Your task to perform on an android device: Find coffee shops on Maps Image 0: 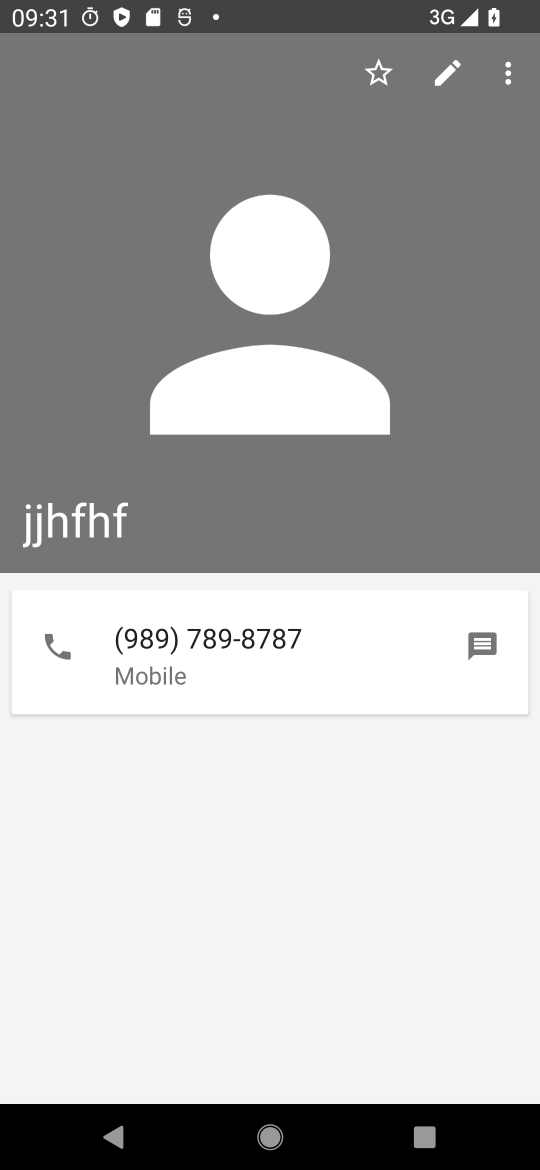
Step 0: press home button
Your task to perform on an android device: Find coffee shops on Maps Image 1: 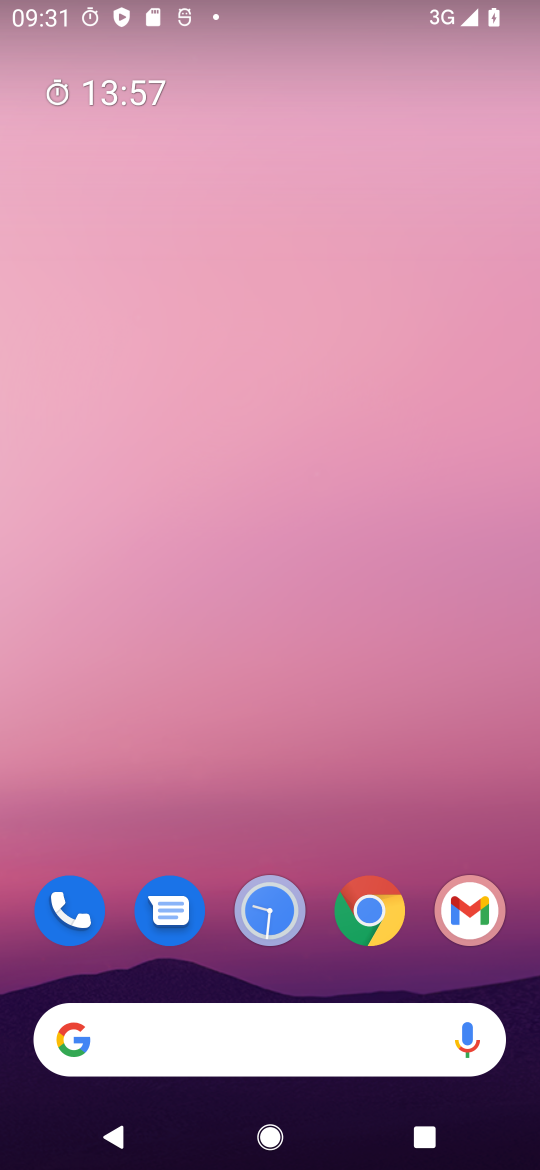
Step 1: drag from (285, 1030) to (304, 60)
Your task to perform on an android device: Find coffee shops on Maps Image 2: 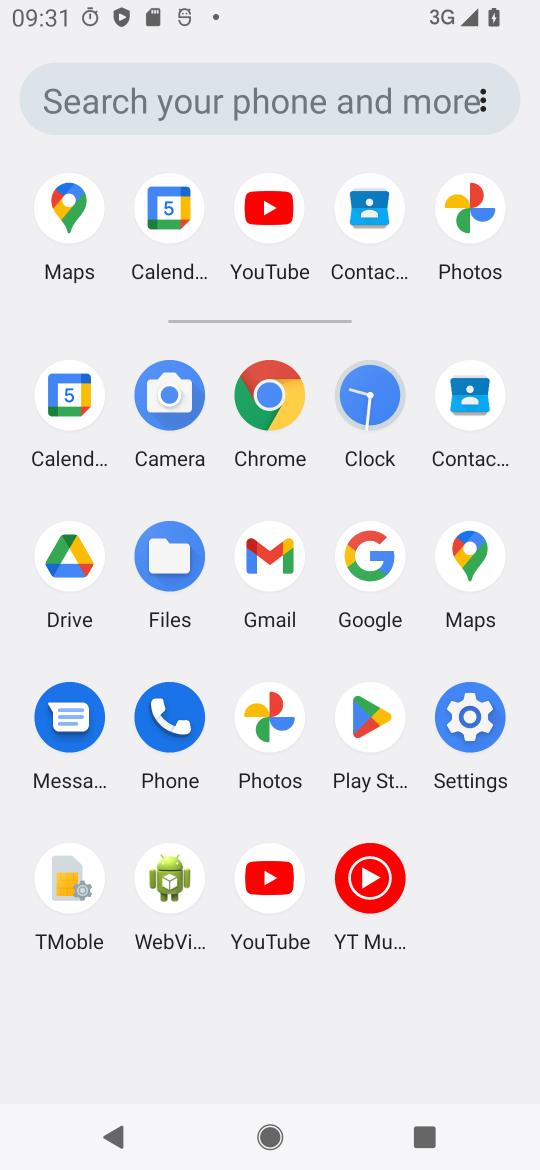
Step 2: click (483, 547)
Your task to perform on an android device: Find coffee shops on Maps Image 3: 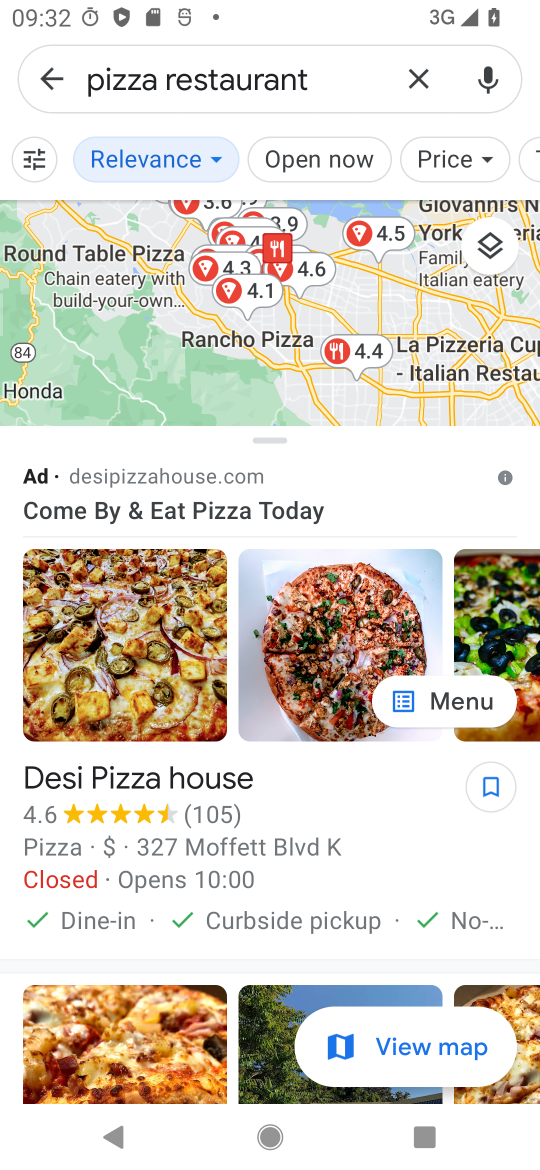
Step 3: click (415, 63)
Your task to perform on an android device: Find coffee shops on Maps Image 4: 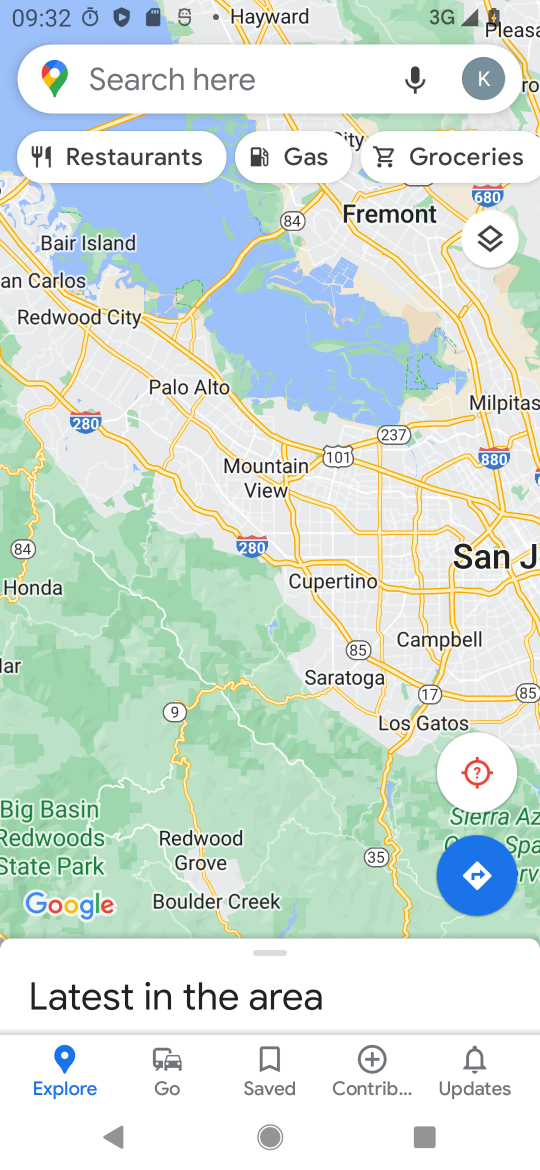
Step 4: click (338, 75)
Your task to perform on an android device: Find coffee shops on Maps Image 5: 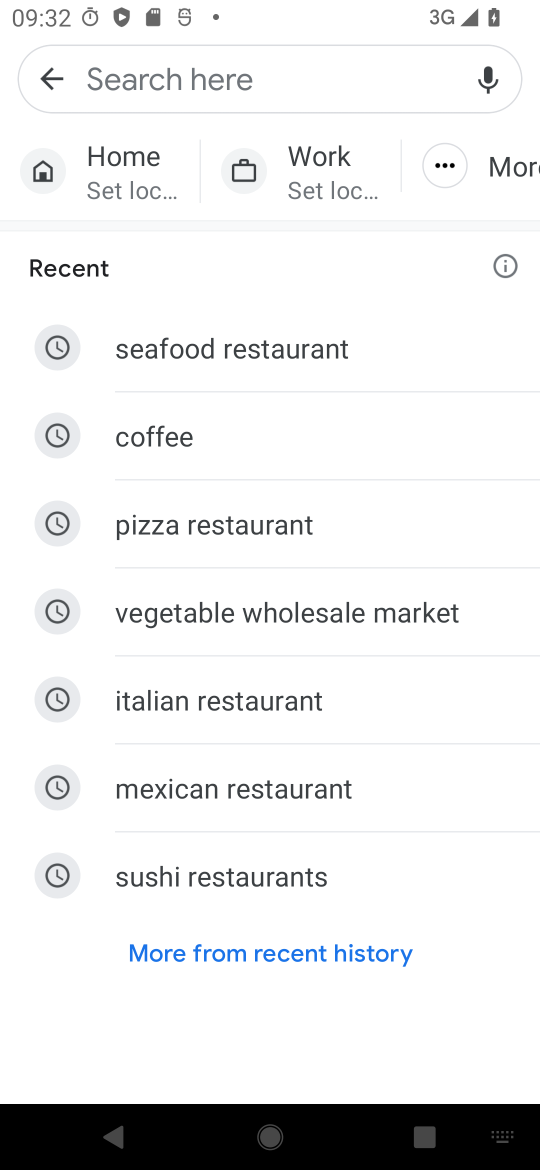
Step 5: type "coffee shops"
Your task to perform on an android device: Find coffee shops on Maps Image 6: 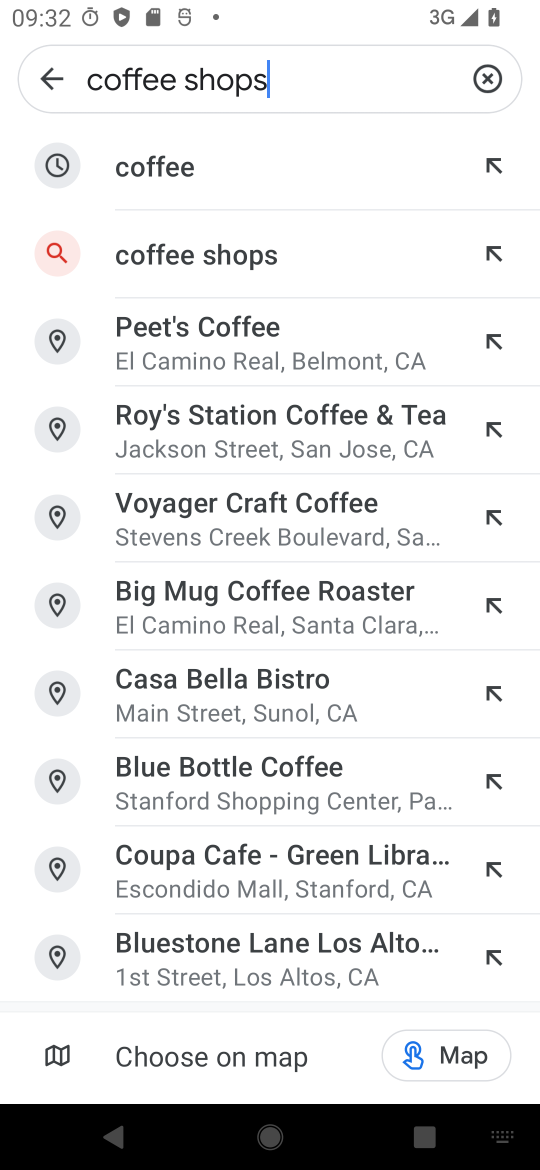
Step 6: click (274, 253)
Your task to perform on an android device: Find coffee shops on Maps Image 7: 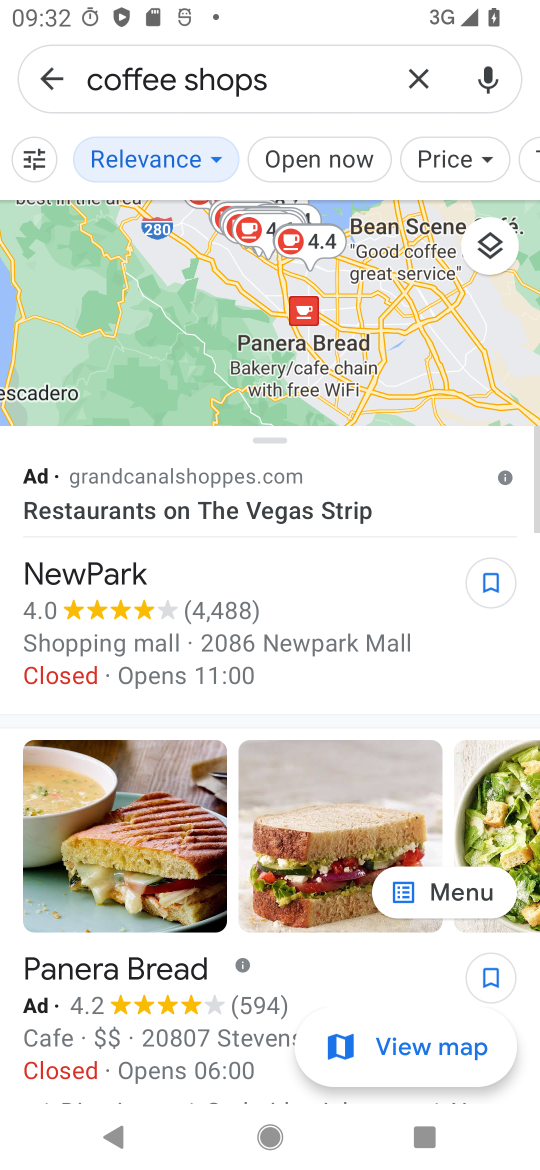
Step 7: task complete